Your task to perform on an android device: find photos in the google photos app Image 0: 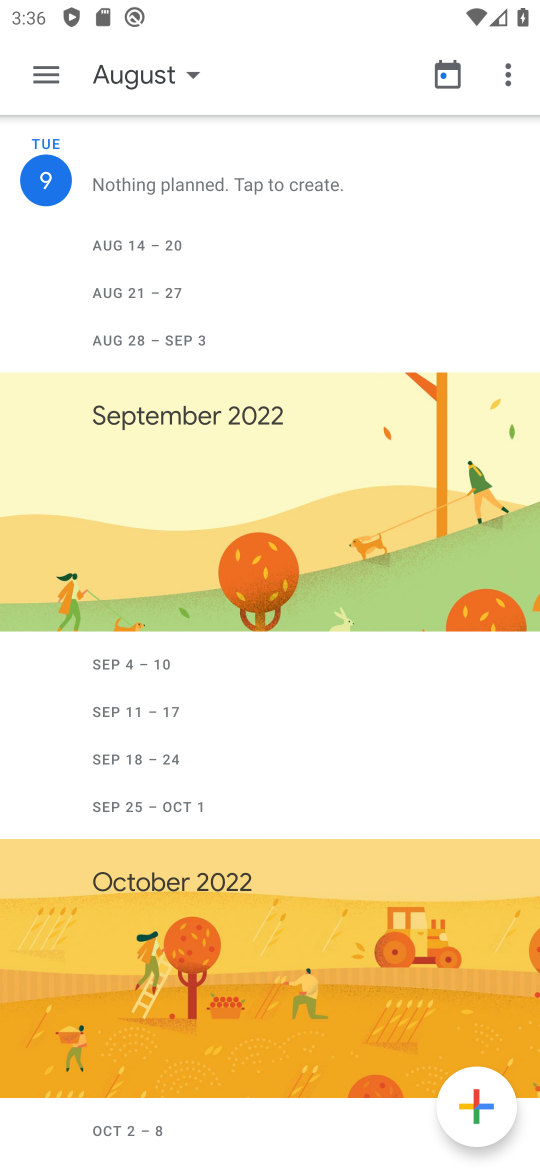
Step 0: drag from (282, 919) to (422, 49)
Your task to perform on an android device: find photos in the google photos app Image 1: 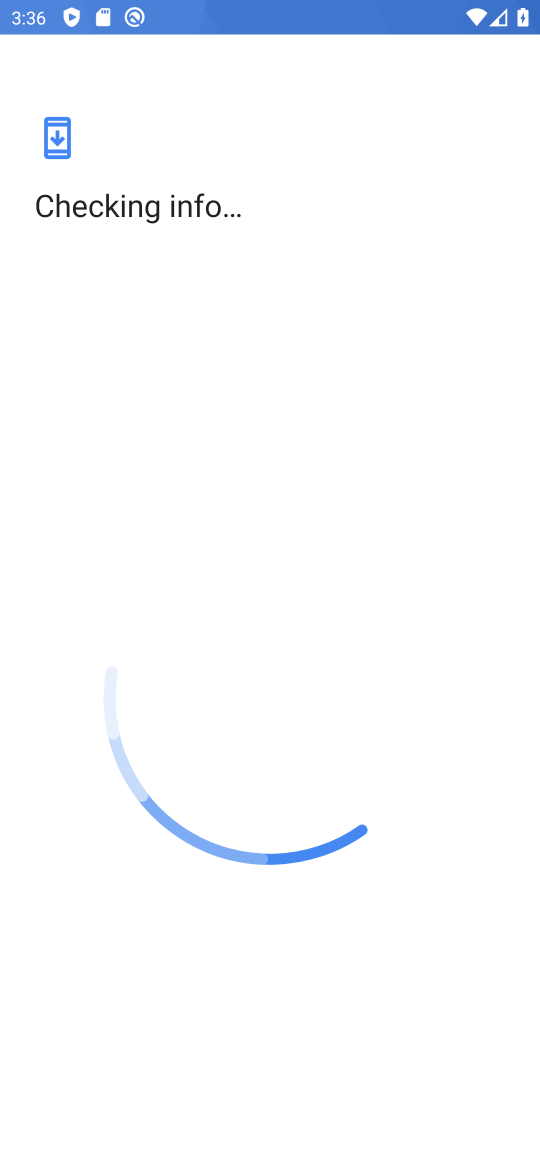
Step 1: press back button
Your task to perform on an android device: find photos in the google photos app Image 2: 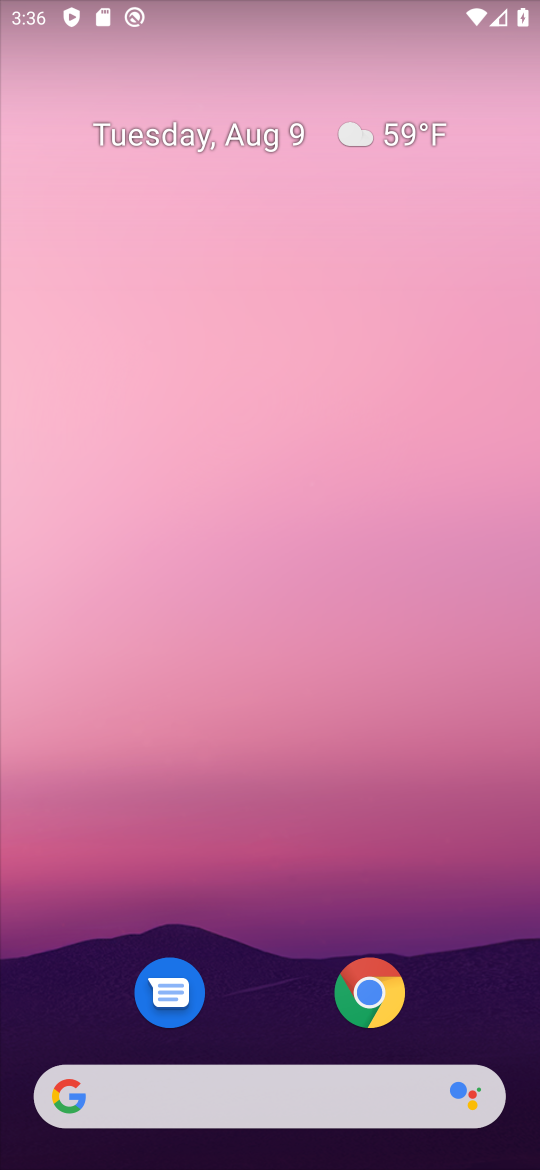
Step 2: drag from (289, 972) to (449, 78)
Your task to perform on an android device: find photos in the google photos app Image 3: 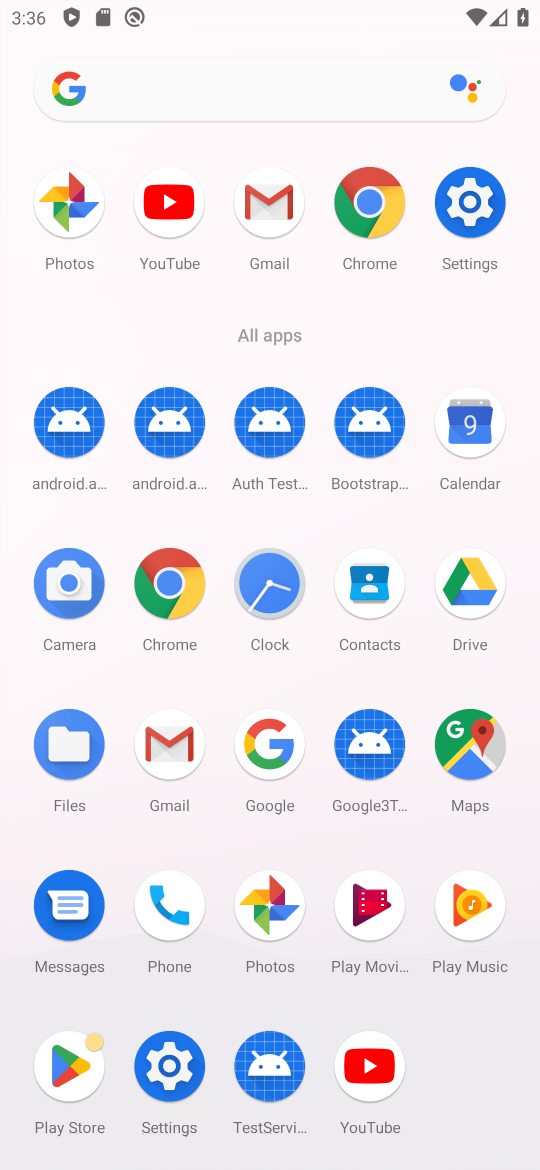
Step 3: click (253, 903)
Your task to perform on an android device: find photos in the google photos app Image 4: 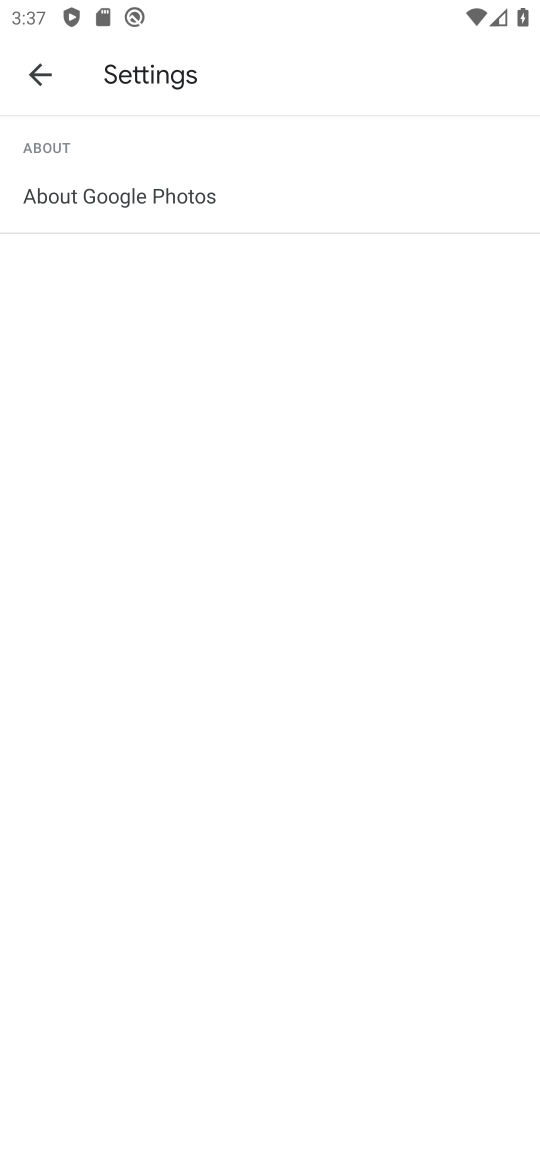
Step 4: click (46, 77)
Your task to perform on an android device: find photos in the google photos app Image 5: 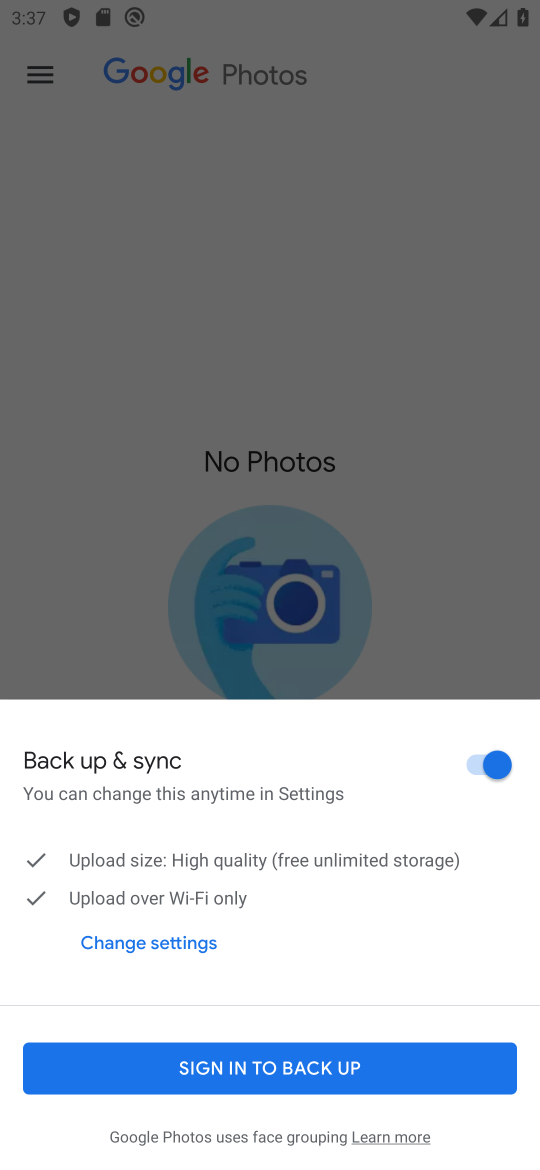
Step 5: click (332, 1052)
Your task to perform on an android device: find photos in the google photos app Image 6: 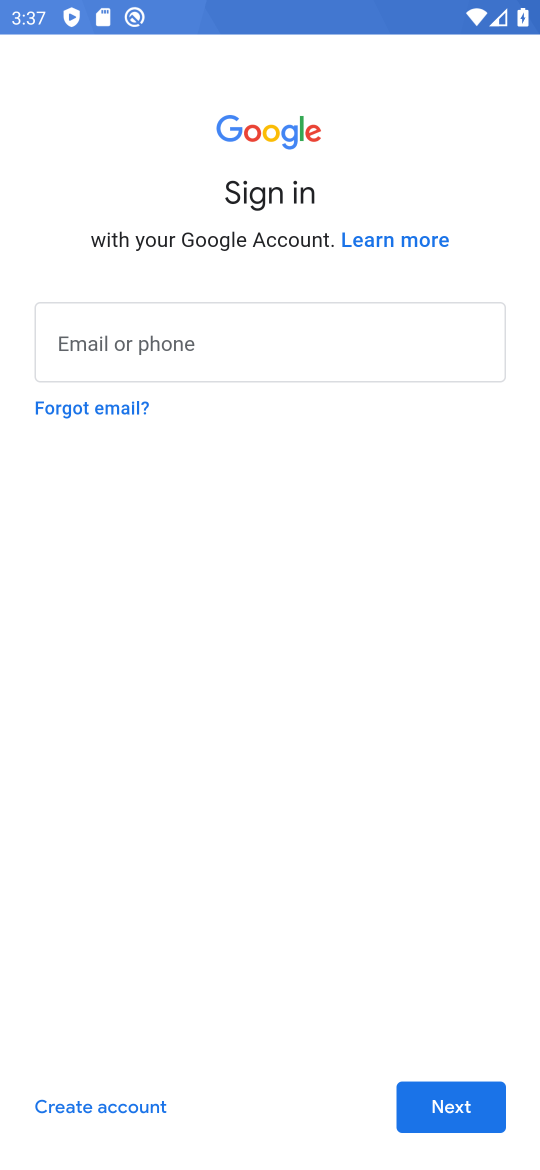
Step 6: click (484, 1115)
Your task to perform on an android device: find photos in the google photos app Image 7: 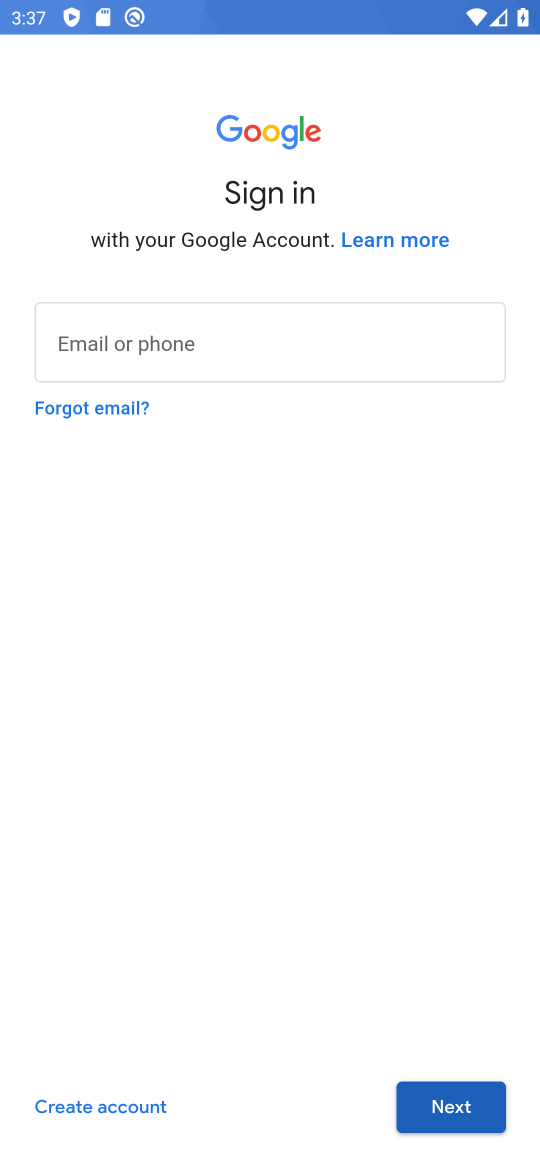
Step 7: press back button
Your task to perform on an android device: find photos in the google photos app Image 8: 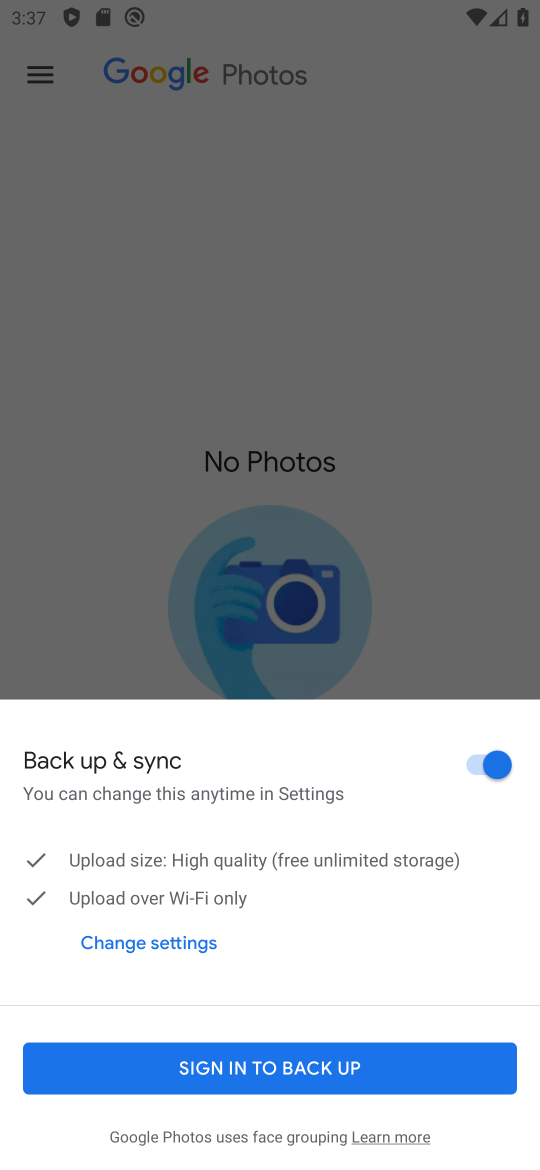
Step 8: click (345, 394)
Your task to perform on an android device: find photos in the google photos app Image 9: 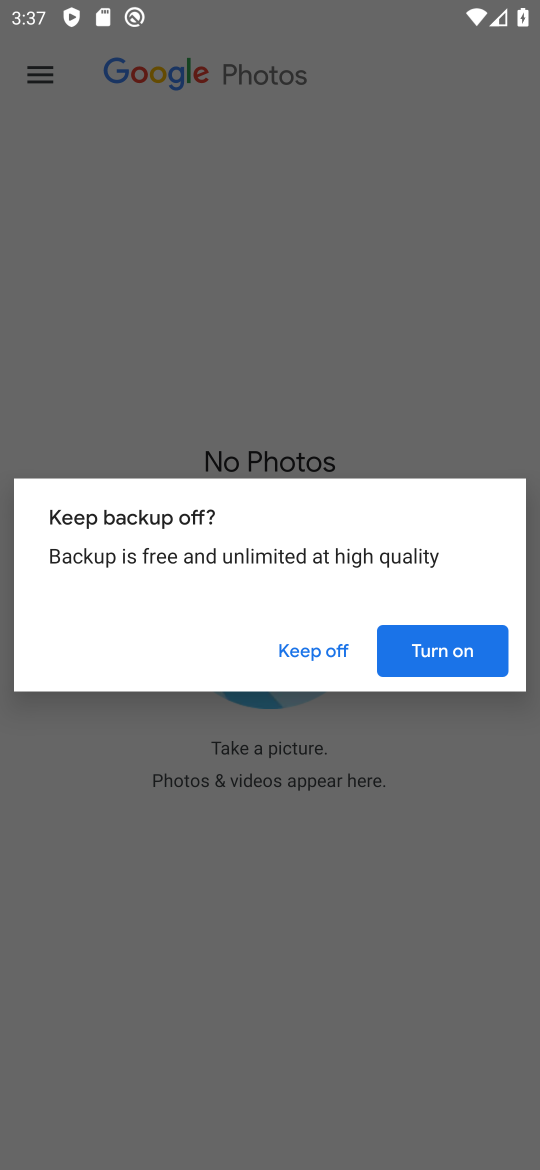
Step 9: click (302, 648)
Your task to perform on an android device: find photos in the google photos app Image 10: 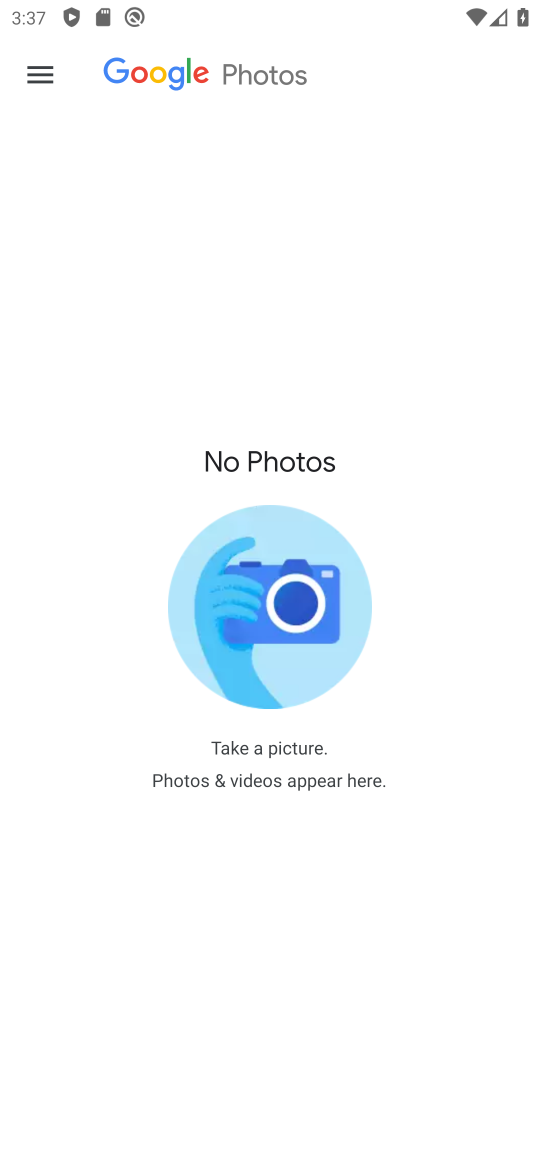
Step 10: task complete